Your task to perform on an android device: empty trash in the gmail app Image 0: 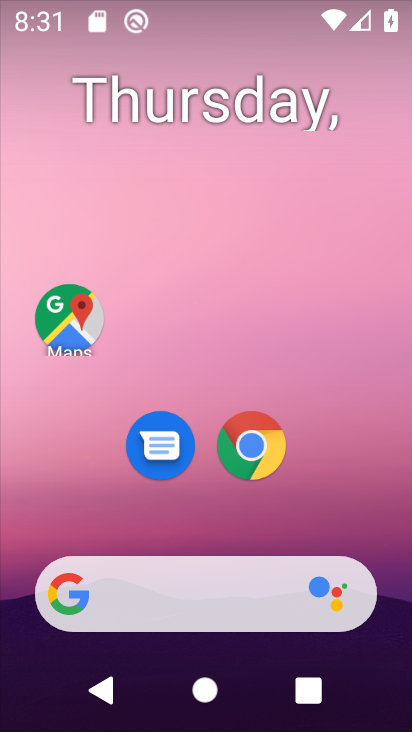
Step 0: drag from (322, 489) to (317, 107)
Your task to perform on an android device: empty trash in the gmail app Image 1: 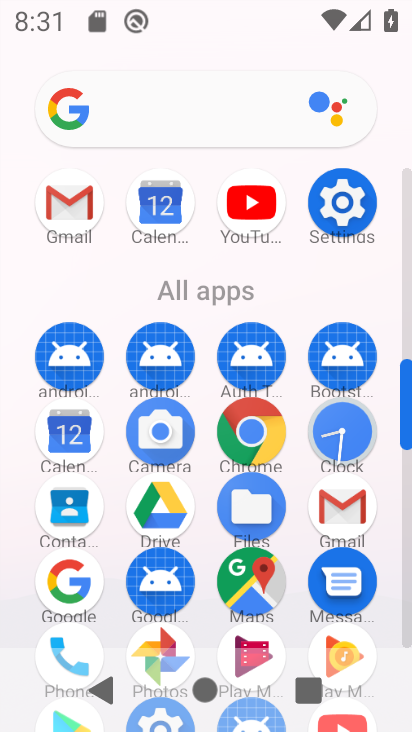
Step 1: click (78, 201)
Your task to perform on an android device: empty trash in the gmail app Image 2: 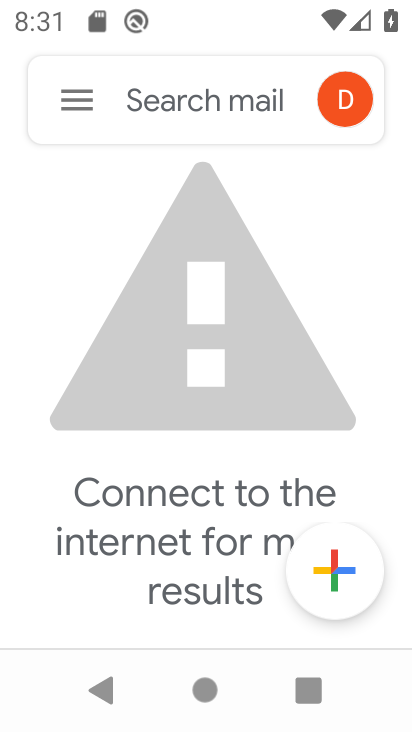
Step 2: click (87, 103)
Your task to perform on an android device: empty trash in the gmail app Image 3: 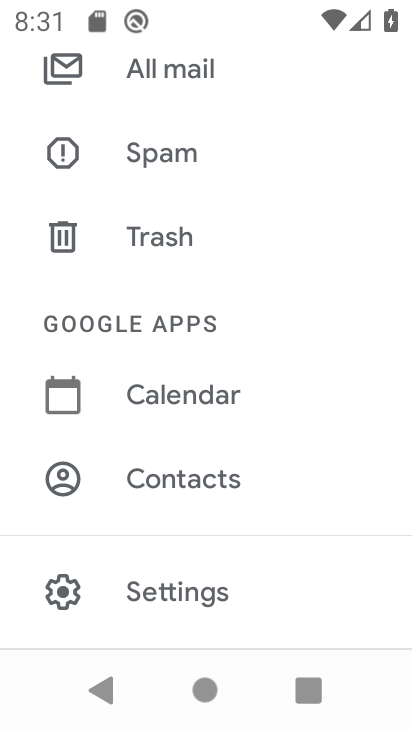
Step 3: click (157, 234)
Your task to perform on an android device: empty trash in the gmail app Image 4: 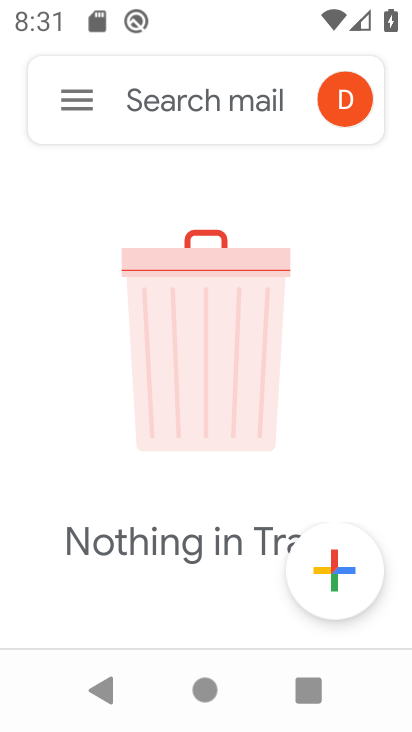
Step 4: task complete